Your task to perform on an android device: Search for logitech g pro on amazon.com, select the first entry, and add it to the cart. Image 0: 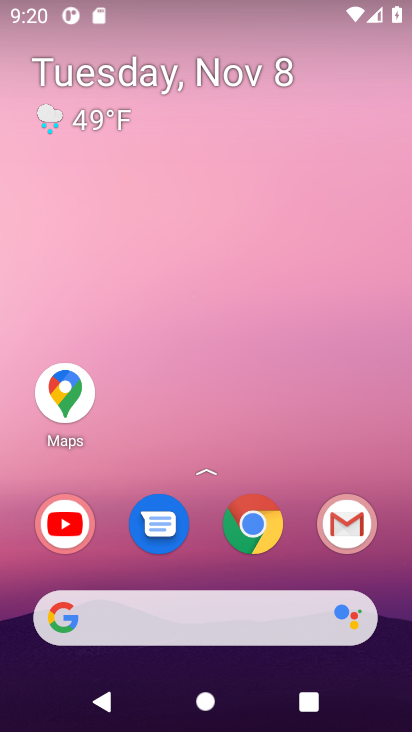
Step 0: click (251, 537)
Your task to perform on an android device: Search for logitech g pro on amazon.com, select the first entry, and add it to the cart. Image 1: 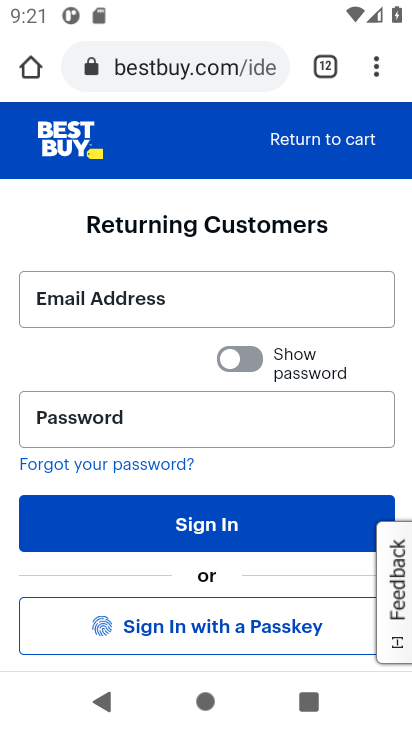
Step 1: click (158, 48)
Your task to perform on an android device: Search for logitech g pro on amazon.com, select the first entry, and add it to the cart. Image 2: 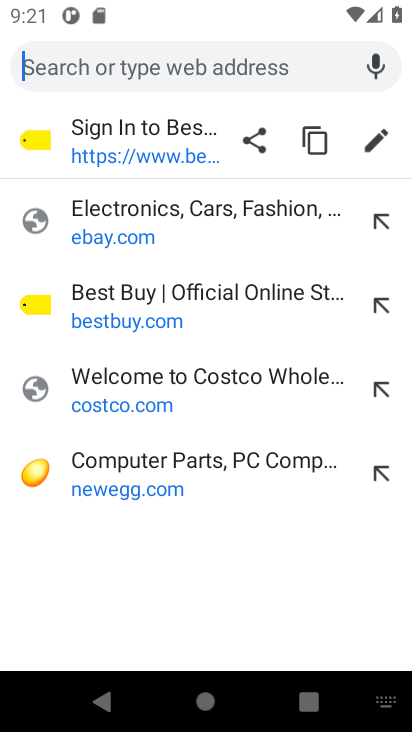
Step 2: type "amazon.com"
Your task to perform on an android device: Search for logitech g pro on amazon.com, select the first entry, and add it to the cart. Image 3: 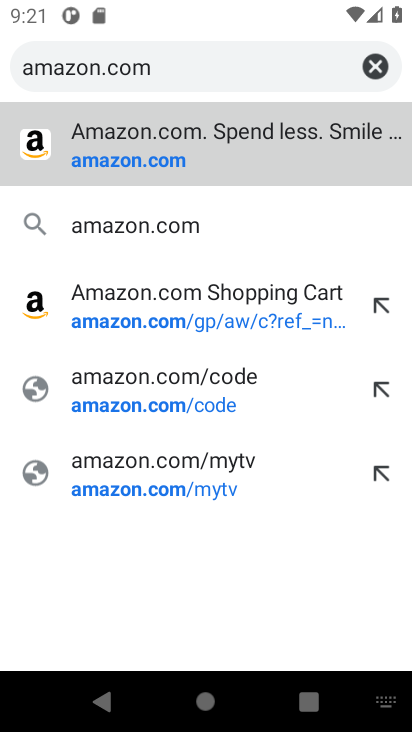
Step 3: click (133, 170)
Your task to perform on an android device: Search for logitech g pro on amazon.com, select the first entry, and add it to the cart. Image 4: 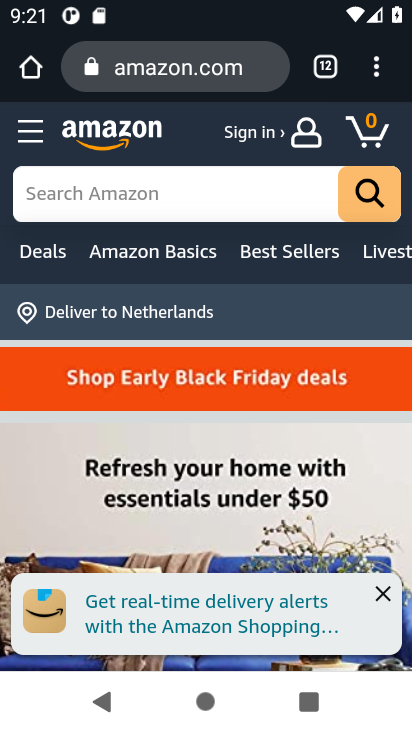
Step 4: click (85, 177)
Your task to perform on an android device: Search for logitech g pro on amazon.com, select the first entry, and add it to the cart. Image 5: 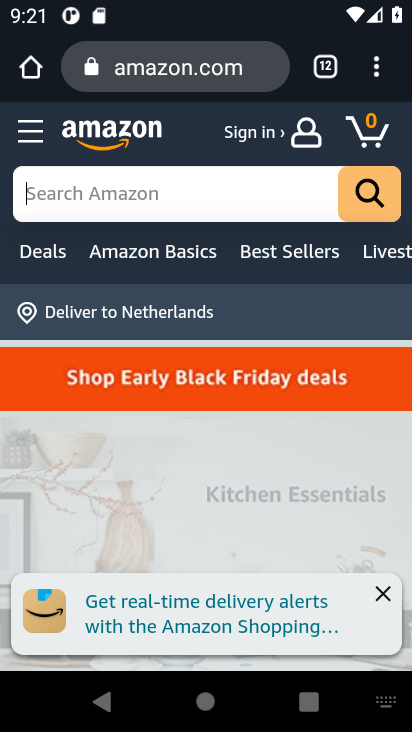
Step 5: type "logitech g pro"
Your task to perform on an android device: Search for logitech g pro on amazon.com, select the first entry, and add it to the cart. Image 6: 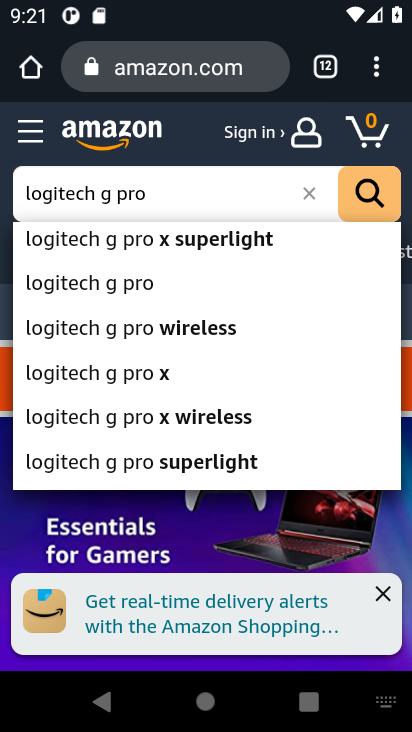
Step 6: click (130, 284)
Your task to perform on an android device: Search for logitech g pro on amazon.com, select the first entry, and add it to the cart. Image 7: 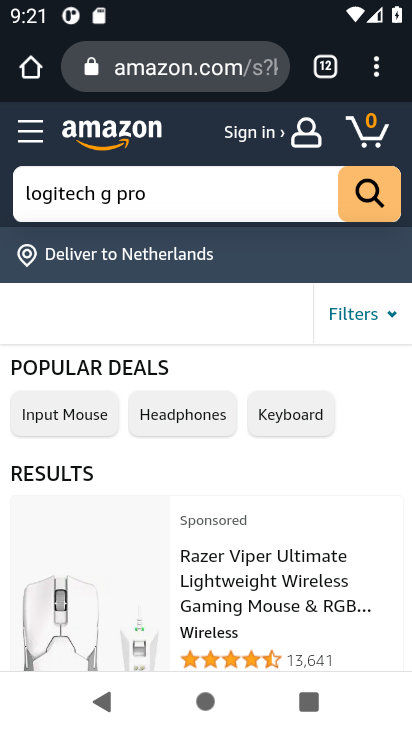
Step 7: task complete